Your task to perform on an android device: turn on javascript in the chrome app Image 0: 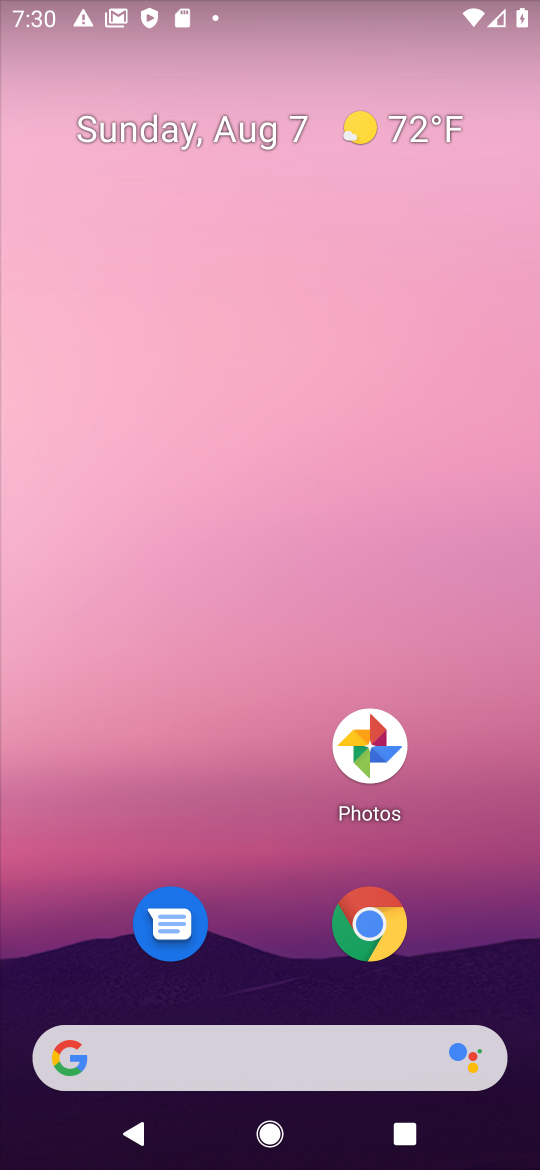
Step 0: drag from (323, 1051) to (238, 79)
Your task to perform on an android device: turn on javascript in the chrome app Image 1: 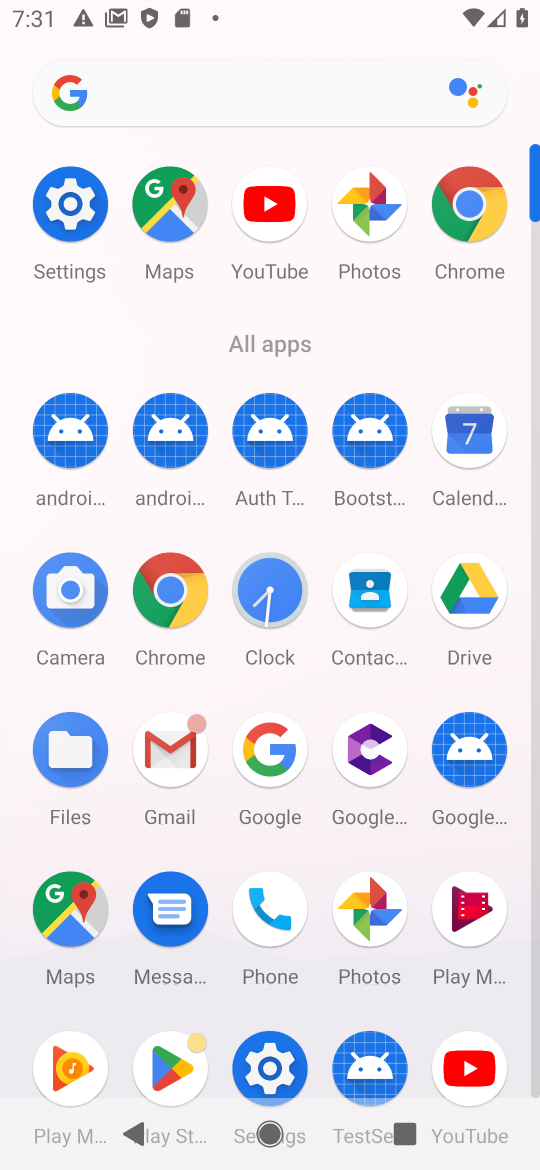
Step 1: click (453, 221)
Your task to perform on an android device: turn on javascript in the chrome app Image 2: 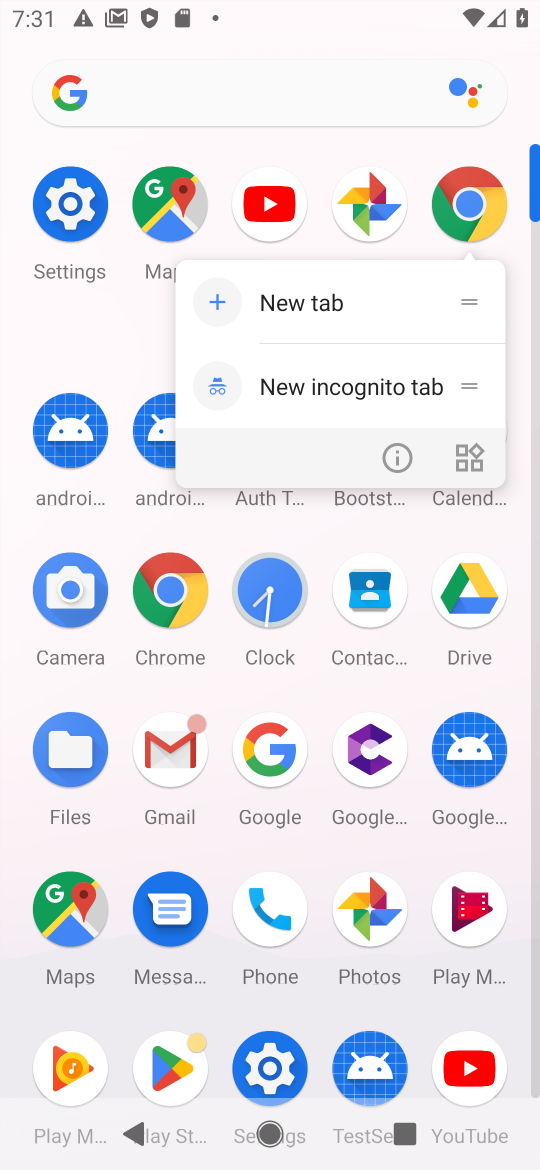
Step 2: click (469, 192)
Your task to perform on an android device: turn on javascript in the chrome app Image 3: 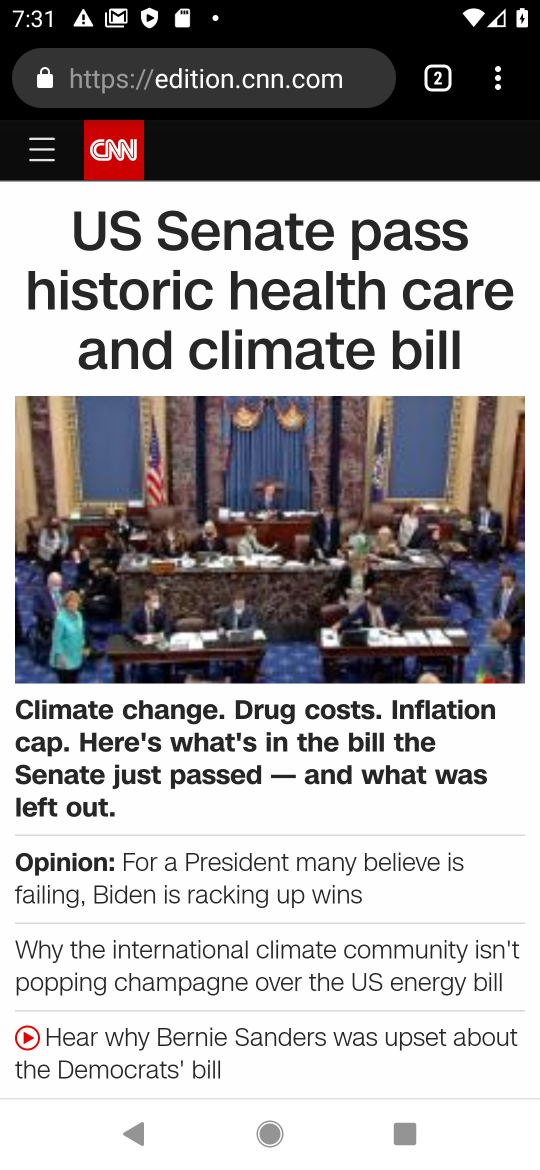
Step 3: click (500, 88)
Your task to perform on an android device: turn on javascript in the chrome app Image 4: 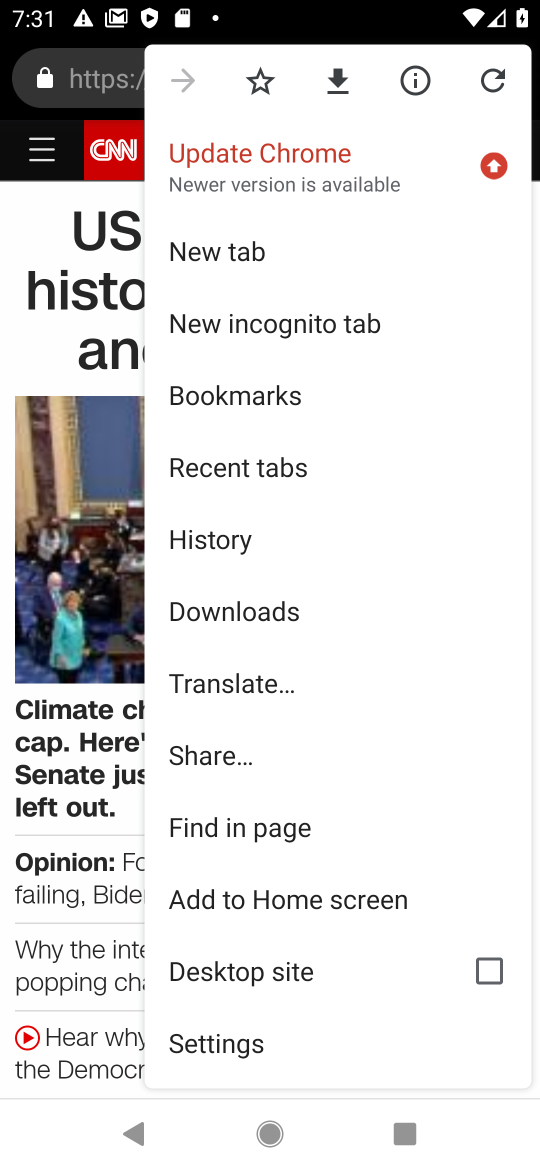
Step 4: click (239, 1045)
Your task to perform on an android device: turn on javascript in the chrome app Image 5: 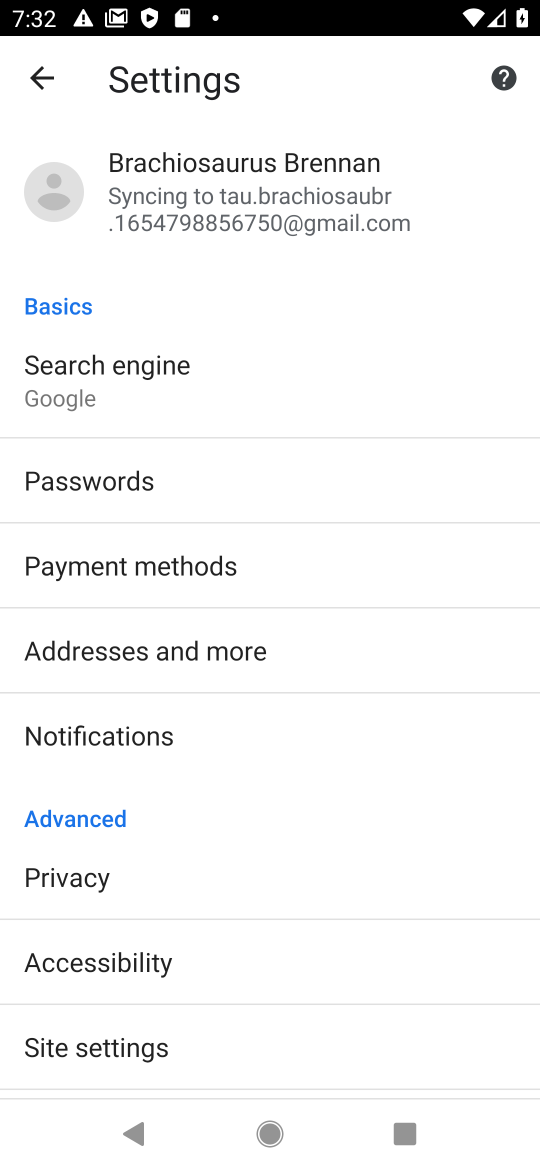
Step 5: click (121, 1052)
Your task to perform on an android device: turn on javascript in the chrome app Image 6: 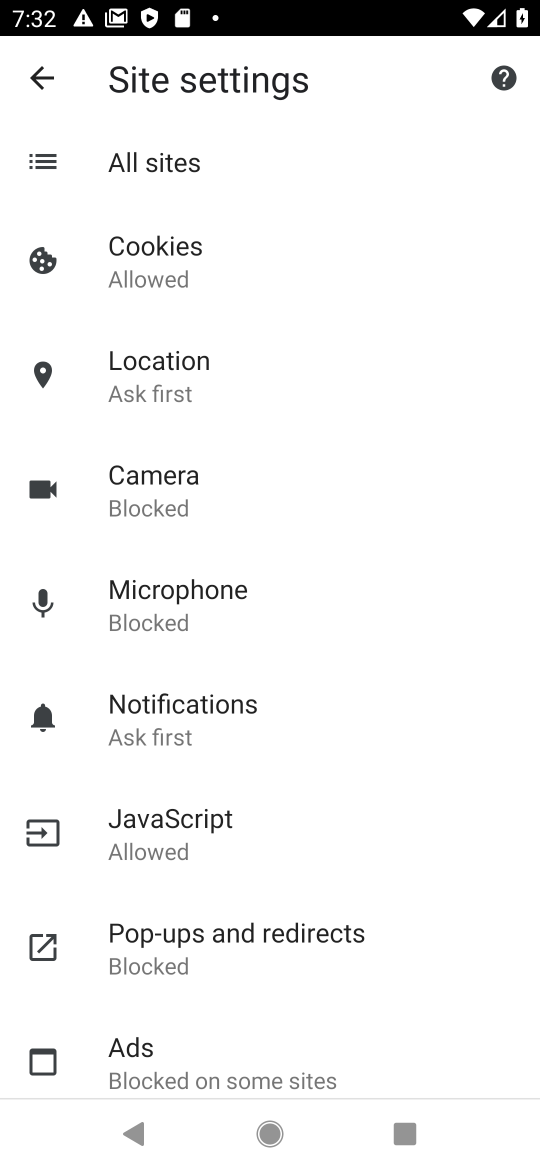
Step 6: click (98, 842)
Your task to perform on an android device: turn on javascript in the chrome app Image 7: 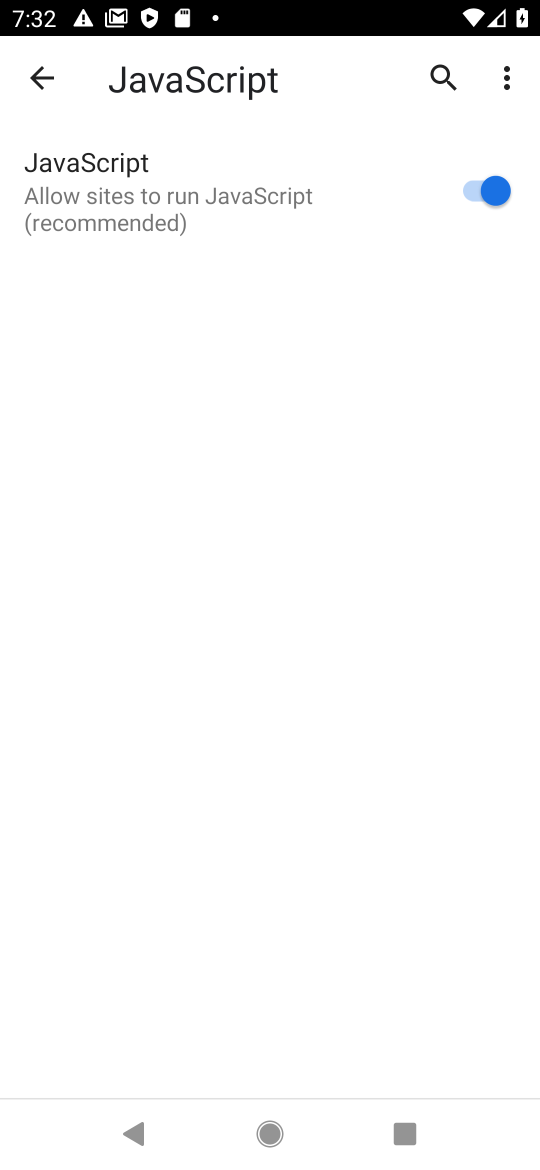
Step 7: task complete